Your task to perform on an android device: Do I have any events tomorrow? Image 0: 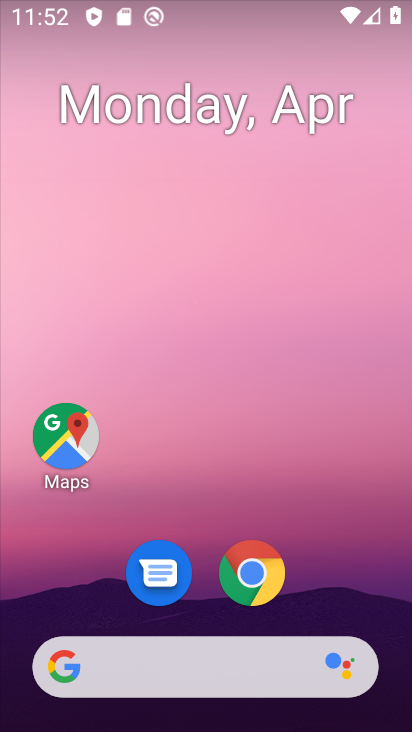
Step 0: drag from (195, 94) to (51, 286)
Your task to perform on an android device: Do I have any events tomorrow? Image 1: 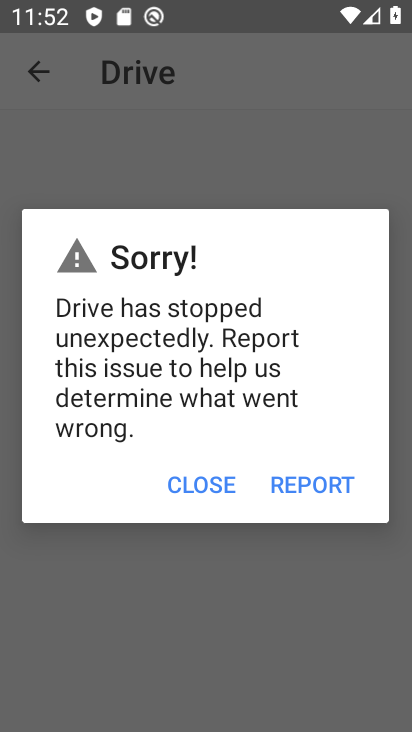
Step 1: press home button
Your task to perform on an android device: Do I have any events tomorrow? Image 2: 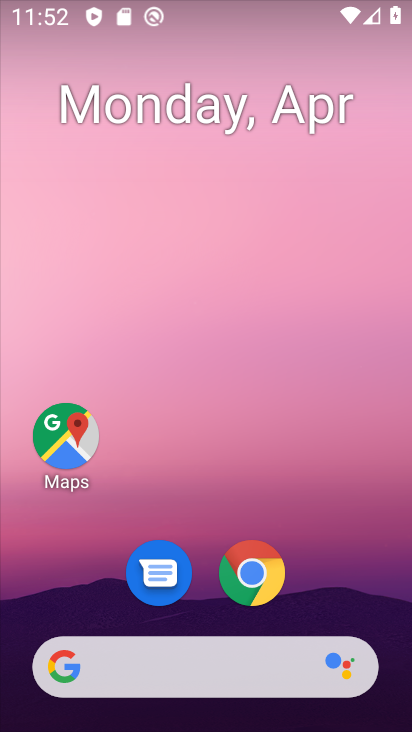
Step 2: drag from (200, 620) to (165, 21)
Your task to perform on an android device: Do I have any events tomorrow? Image 3: 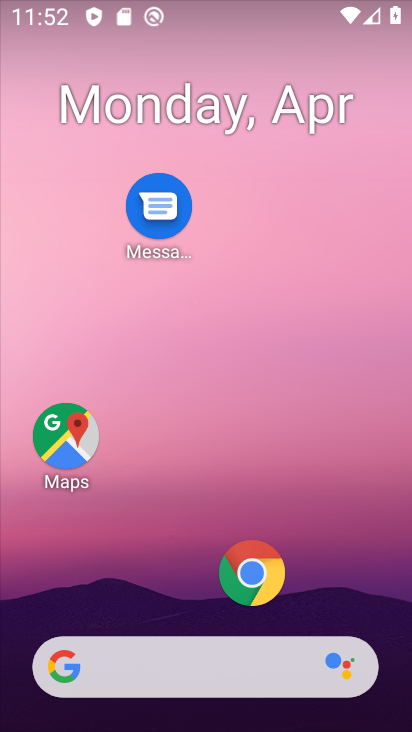
Step 3: drag from (177, 599) to (247, 23)
Your task to perform on an android device: Do I have any events tomorrow? Image 4: 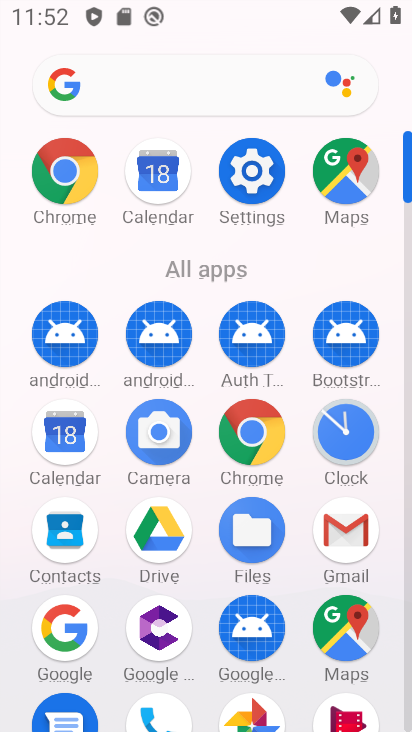
Step 4: click (58, 448)
Your task to perform on an android device: Do I have any events tomorrow? Image 5: 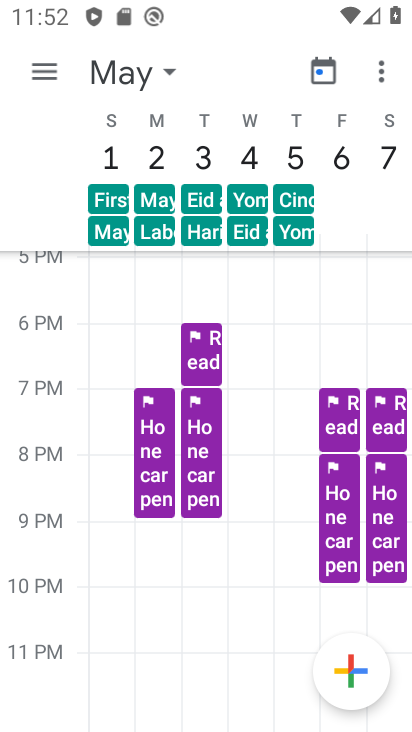
Step 5: drag from (103, 150) to (352, 121)
Your task to perform on an android device: Do I have any events tomorrow? Image 6: 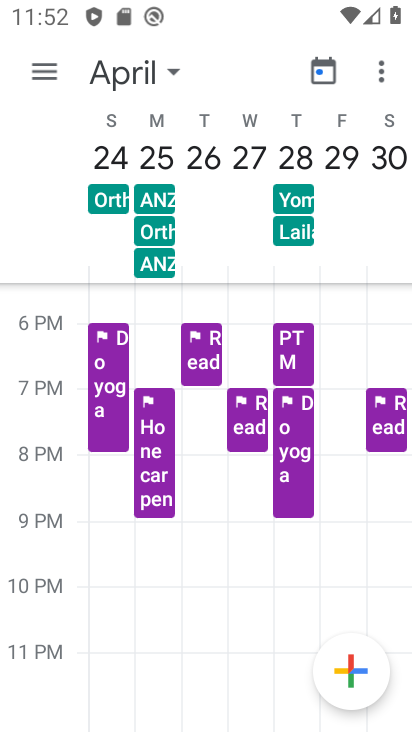
Step 6: drag from (116, 133) to (354, 159)
Your task to perform on an android device: Do I have any events tomorrow? Image 7: 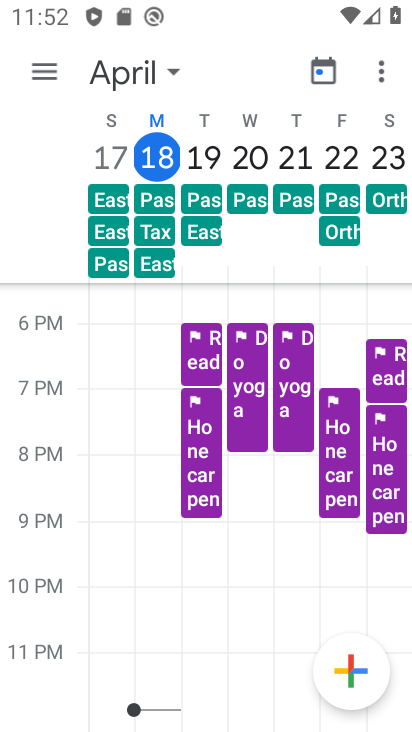
Step 7: click (200, 159)
Your task to perform on an android device: Do I have any events tomorrow? Image 8: 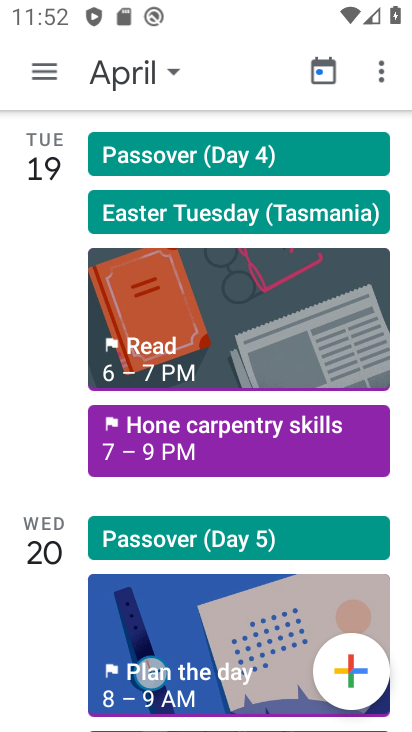
Step 8: task complete